Your task to perform on an android device: set the stopwatch Image 0: 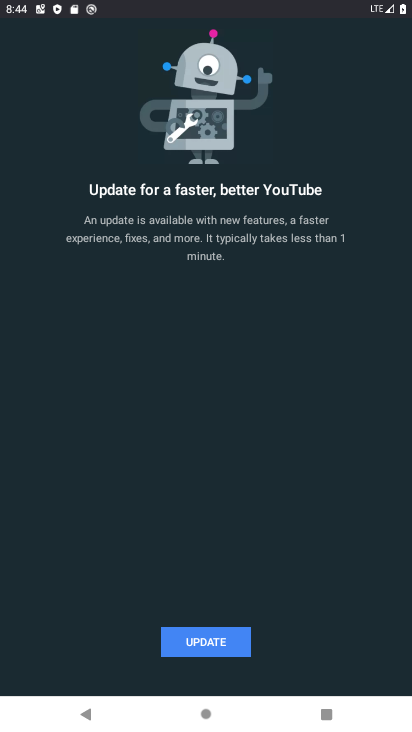
Step 0: press home button
Your task to perform on an android device: set the stopwatch Image 1: 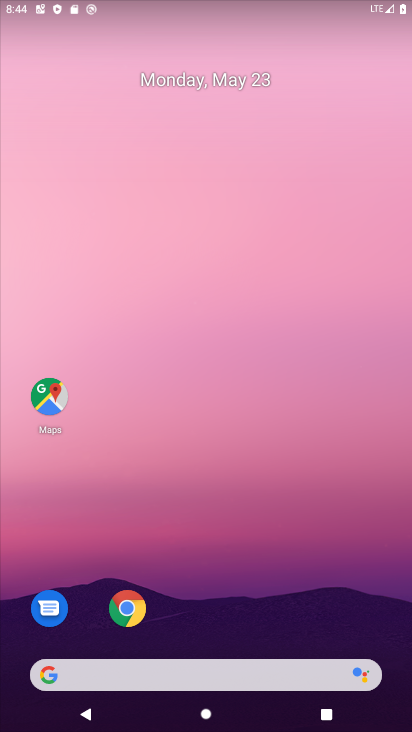
Step 1: drag from (209, 668) to (156, 138)
Your task to perform on an android device: set the stopwatch Image 2: 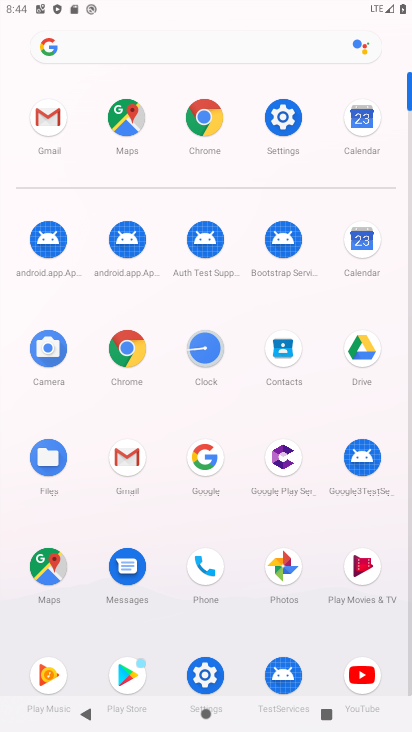
Step 2: click (213, 355)
Your task to perform on an android device: set the stopwatch Image 3: 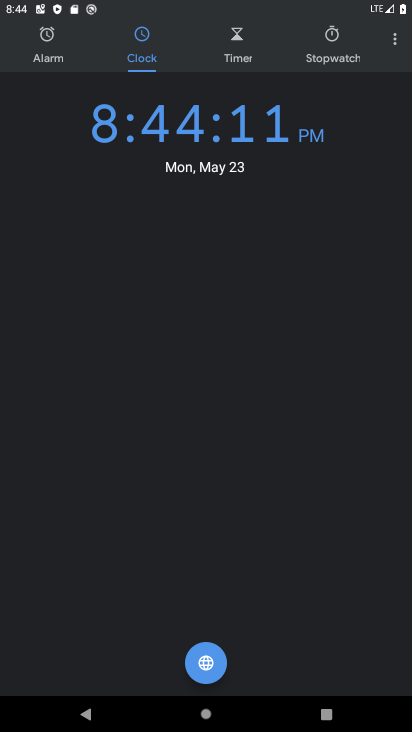
Step 3: click (328, 57)
Your task to perform on an android device: set the stopwatch Image 4: 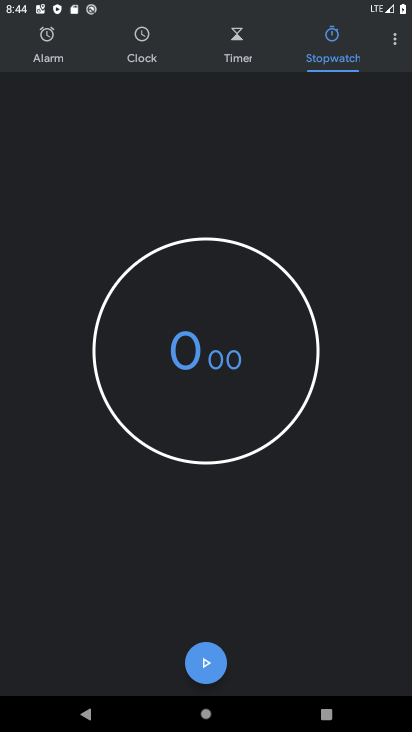
Step 4: click (197, 655)
Your task to perform on an android device: set the stopwatch Image 5: 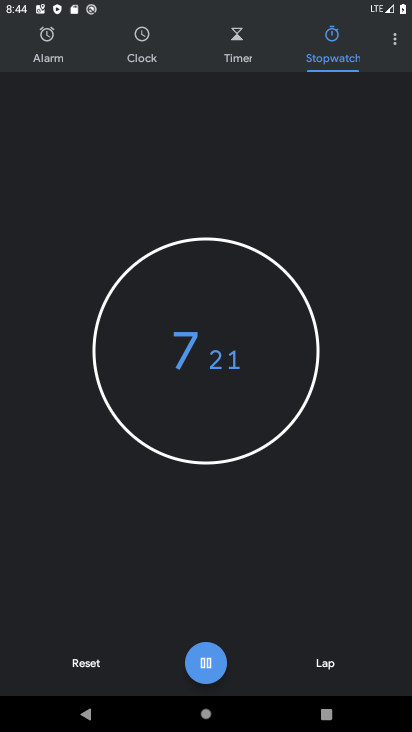
Step 5: task complete